Your task to perform on an android device: delete browsing data in the chrome app Image 0: 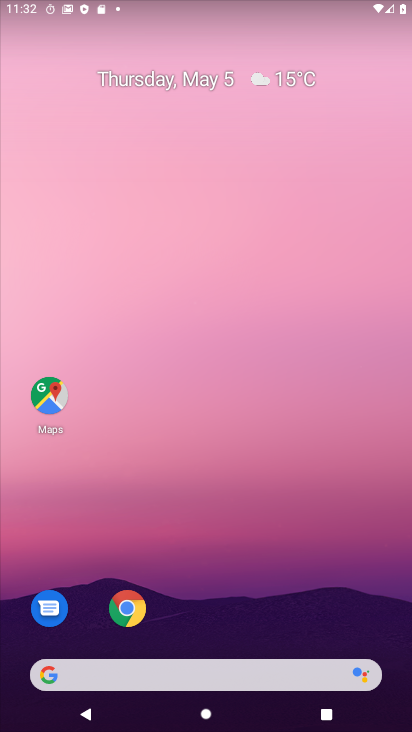
Step 0: click (127, 607)
Your task to perform on an android device: delete browsing data in the chrome app Image 1: 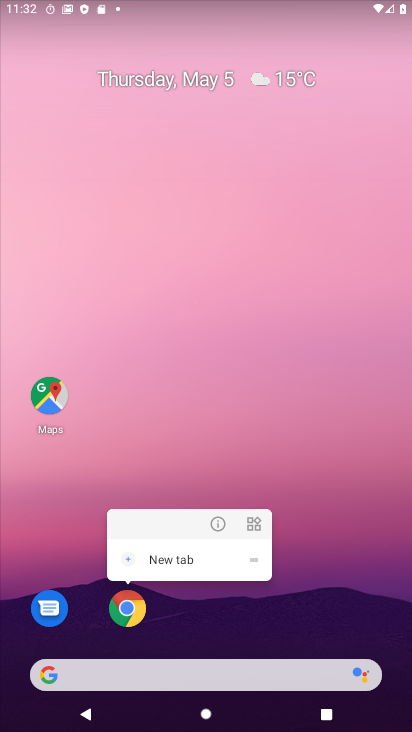
Step 1: click (129, 606)
Your task to perform on an android device: delete browsing data in the chrome app Image 2: 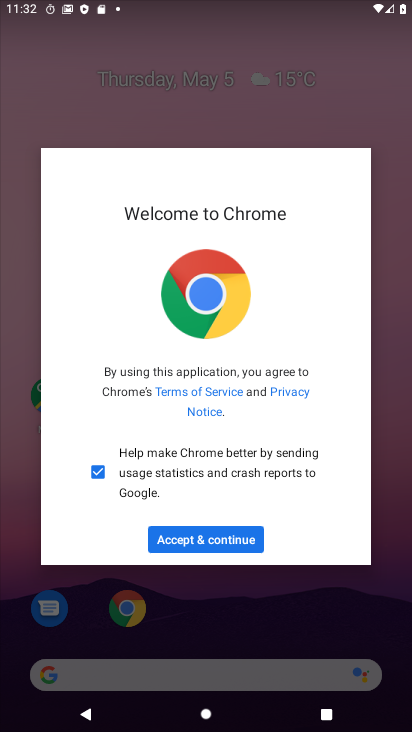
Step 2: click (189, 539)
Your task to perform on an android device: delete browsing data in the chrome app Image 3: 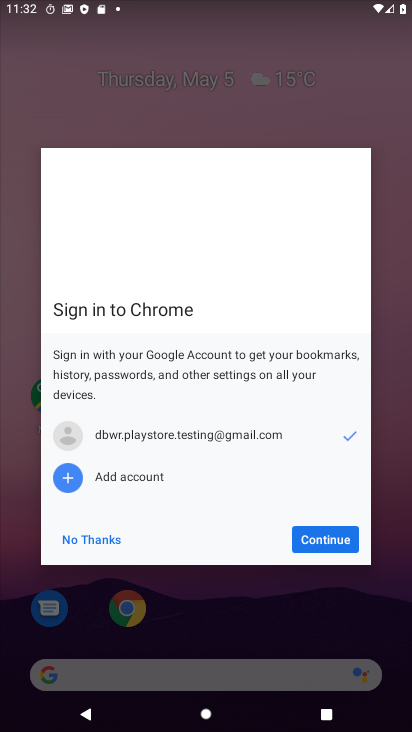
Step 3: click (323, 537)
Your task to perform on an android device: delete browsing data in the chrome app Image 4: 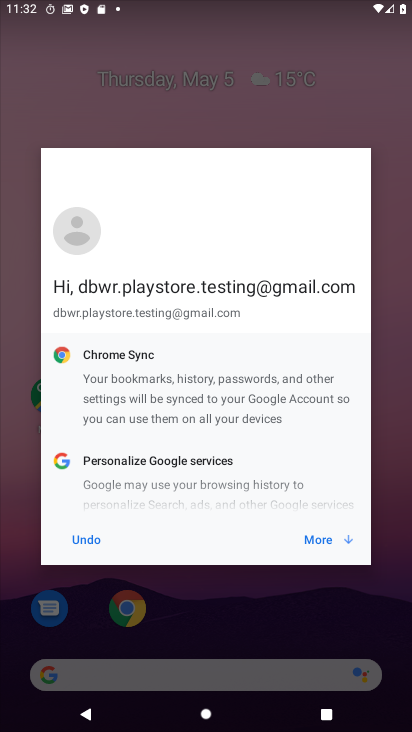
Step 4: click (323, 536)
Your task to perform on an android device: delete browsing data in the chrome app Image 5: 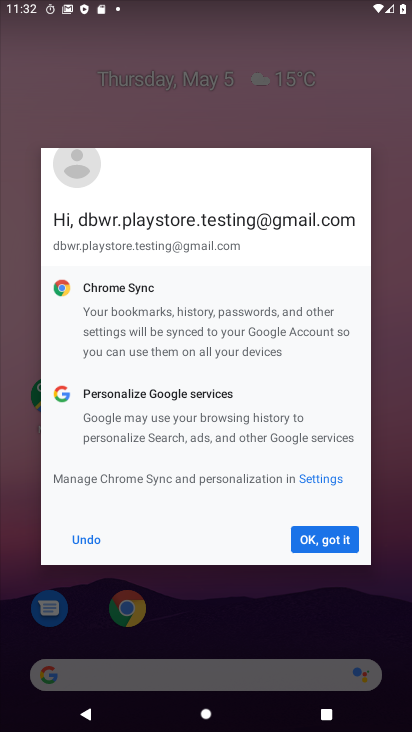
Step 5: click (323, 535)
Your task to perform on an android device: delete browsing data in the chrome app Image 6: 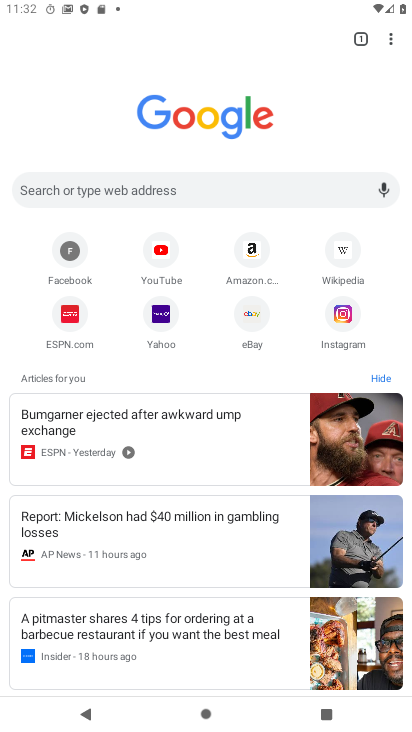
Step 6: click (392, 37)
Your task to perform on an android device: delete browsing data in the chrome app Image 7: 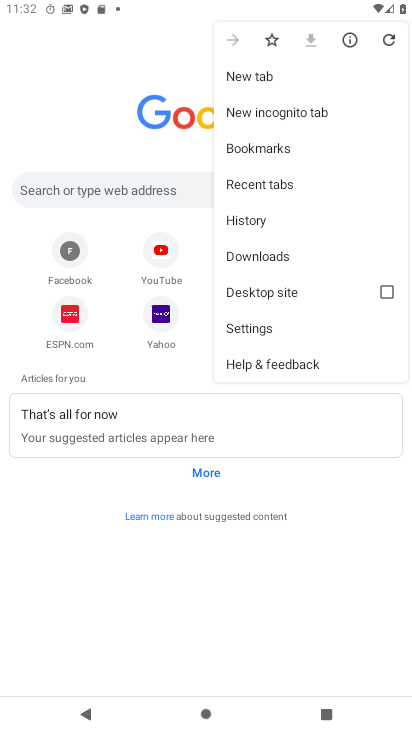
Step 7: click (254, 224)
Your task to perform on an android device: delete browsing data in the chrome app Image 8: 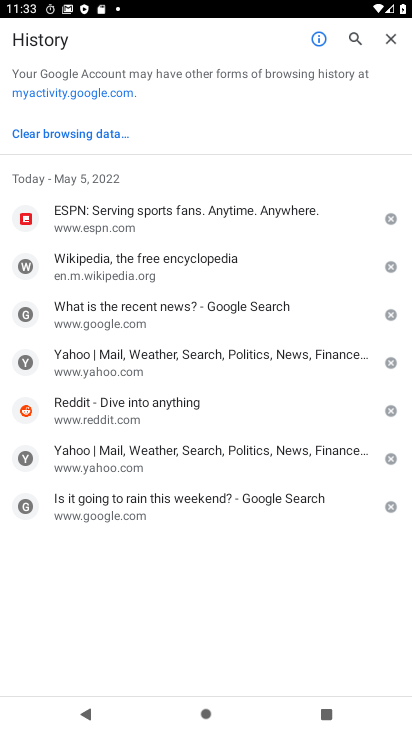
Step 8: click (105, 132)
Your task to perform on an android device: delete browsing data in the chrome app Image 9: 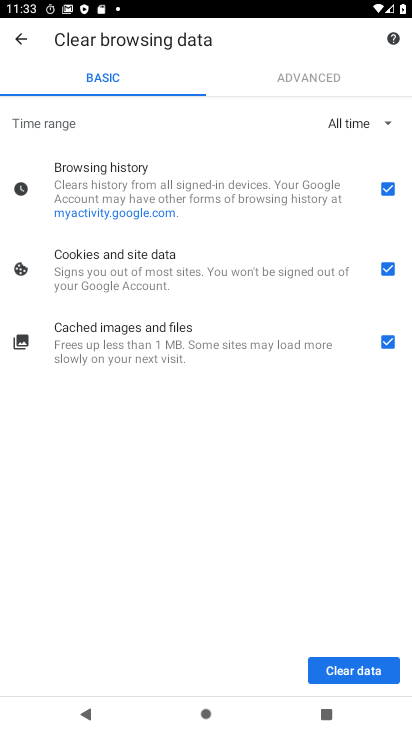
Step 9: click (334, 669)
Your task to perform on an android device: delete browsing data in the chrome app Image 10: 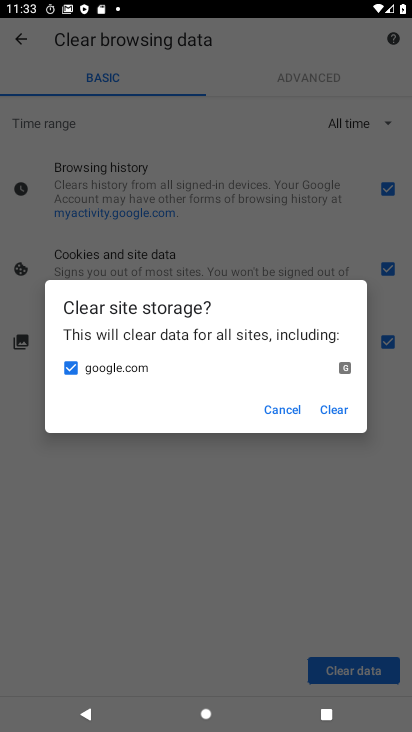
Step 10: click (330, 410)
Your task to perform on an android device: delete browsing data in the chrome app Image 11: 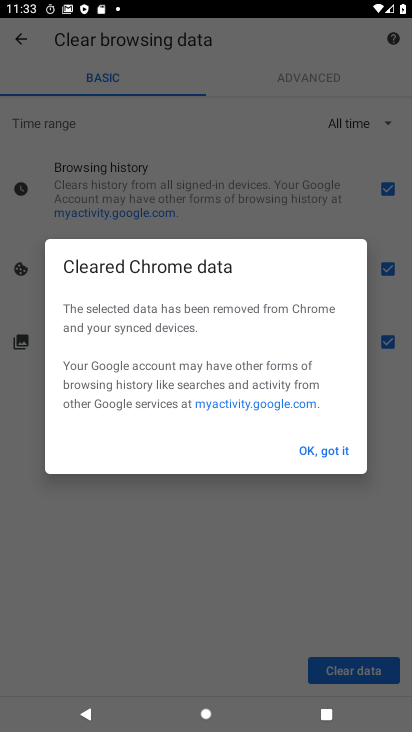
Step 11: click (327, 455)
Your task to perform on an android device: delete browsing data in the chrome app Image 12: 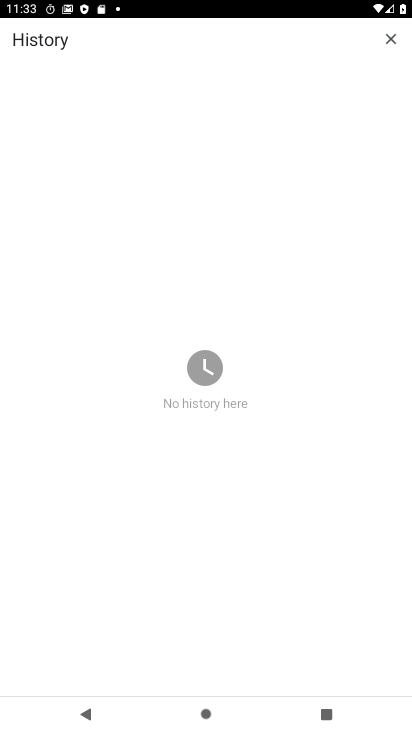
Step 12: task complete